Your task to perform on an android device: delete location history Image 0: 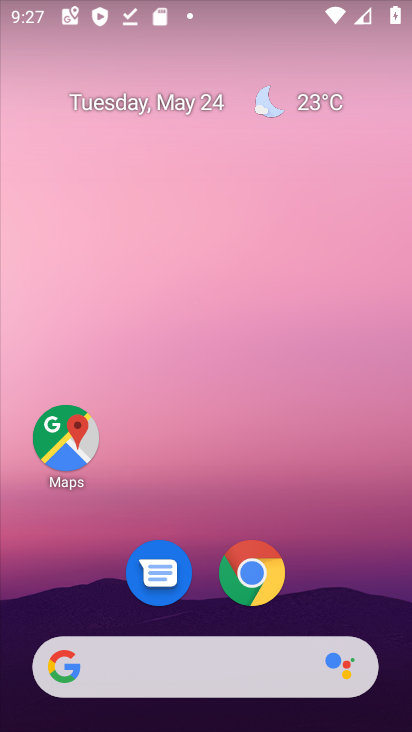
Step 0: drag from (372, 648) to (184, 15)
Your task to perform on an android device: delete location history Image 1: 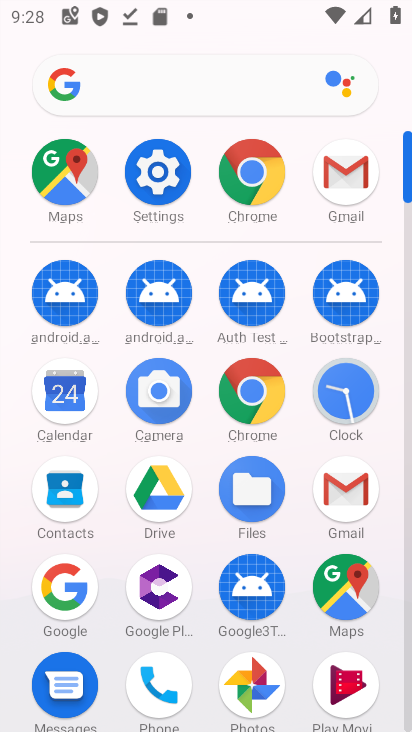
Step 1: click (152, 179)
Your task to perform on an android device: delete location history Image 2: 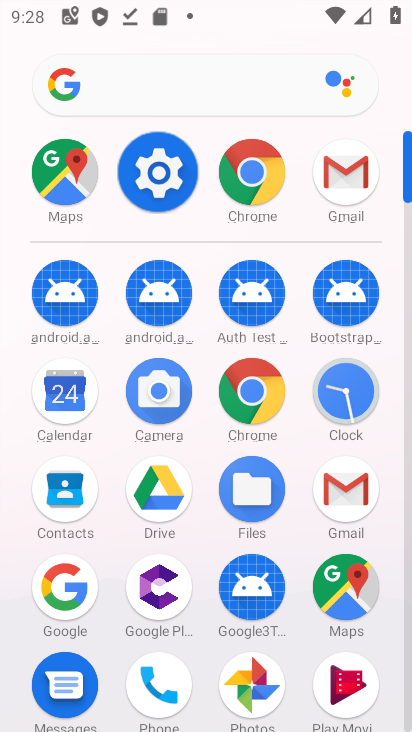
Step 2: click (153, 179)
Your task to perform on an android device: delete location history Image 3: 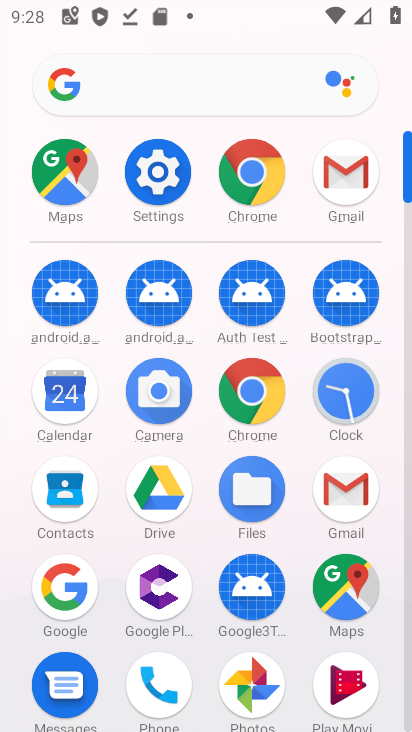
Step 3: click (153, 173)
Your task to perform on an android device: delete location history Image 4: 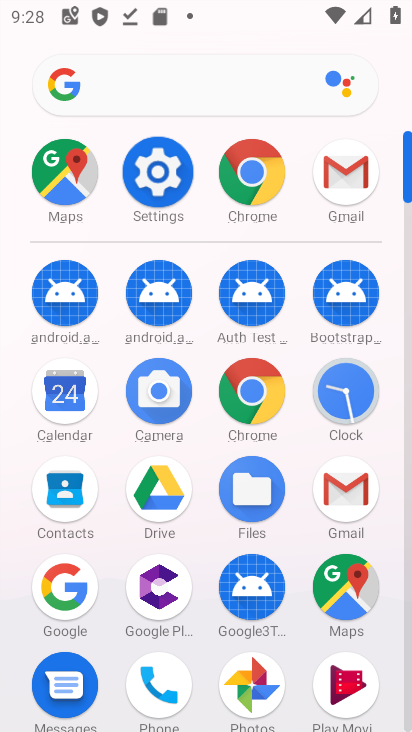
Step 4: click (149, 169)
Your task to perform on an android device: delete location history Image 5: 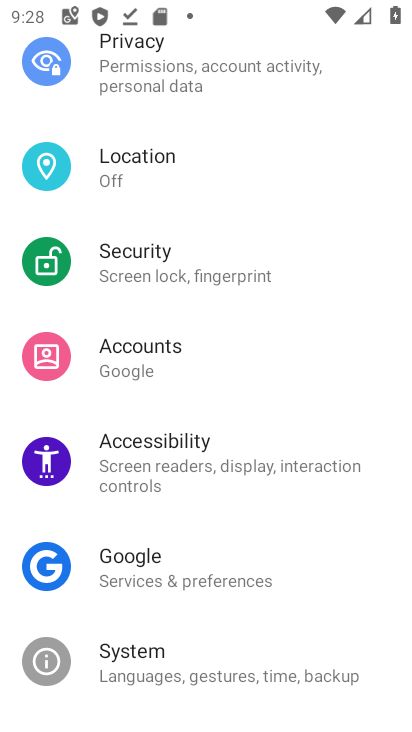
Step 5: click (150, 173)
Your task to perform on an android device: delete location history Image 6: 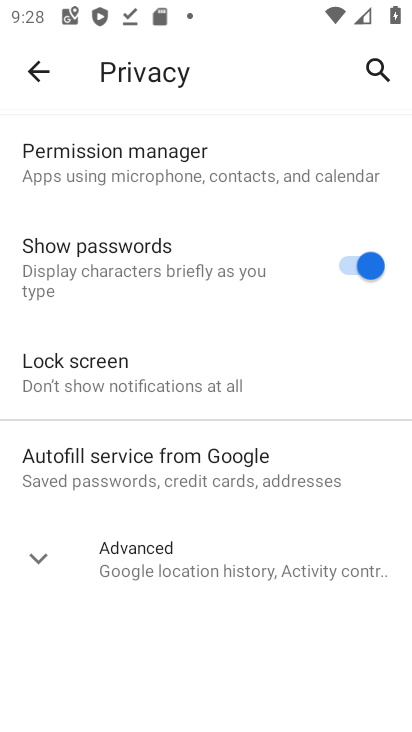
Step 6: click (35, 70)
Your task to perform on an android device: delete location history Image 7: 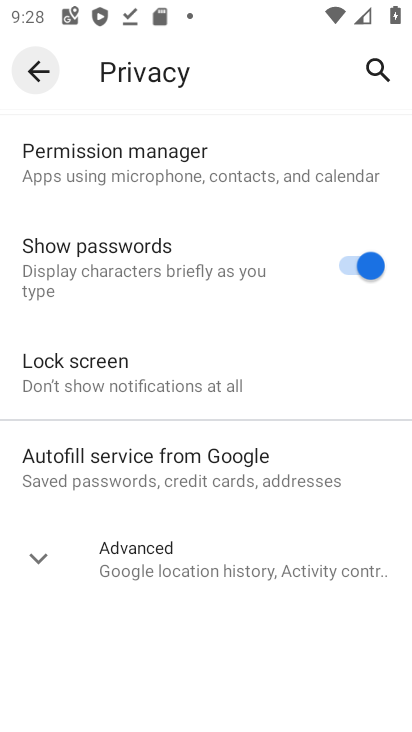
Step 7: click (40, 70)
Your task to perform on an android device: delete location history Image 8: 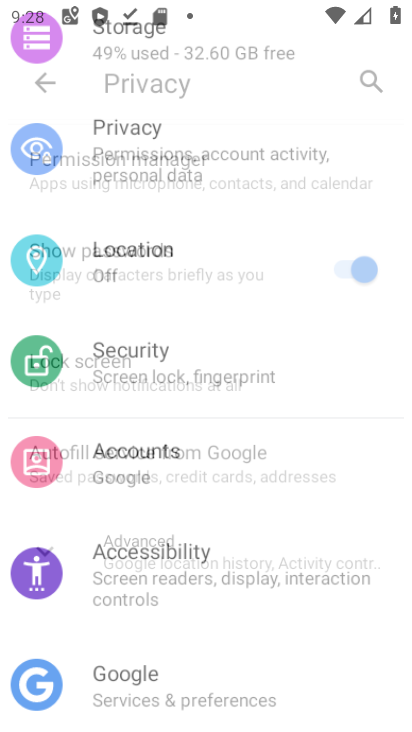
Step 8: click (40, 69)
Your task to perform on an android device: delete location history Image 9: 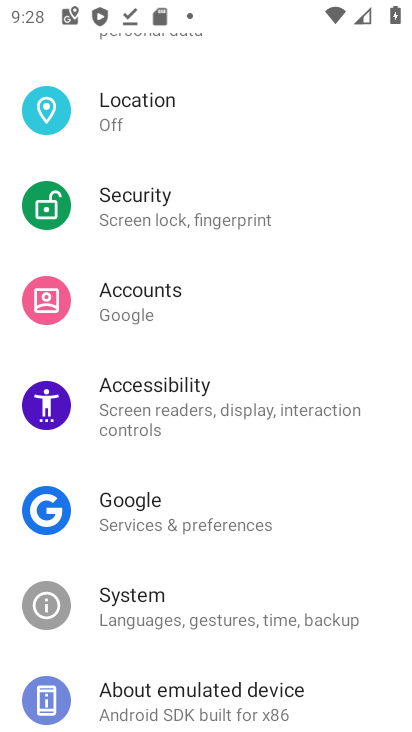
Step 9: click (40, 69)
Your task to perform on an android device: delete location history Image 10: 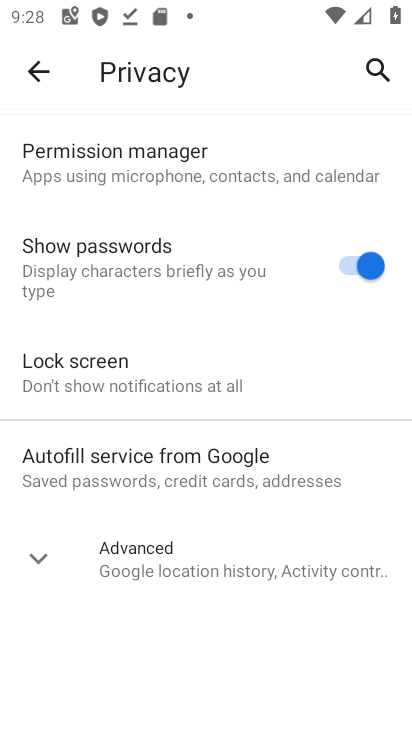
Step 10: click (36, 68)
Your task to perform on an android device: delete location history Image 11: 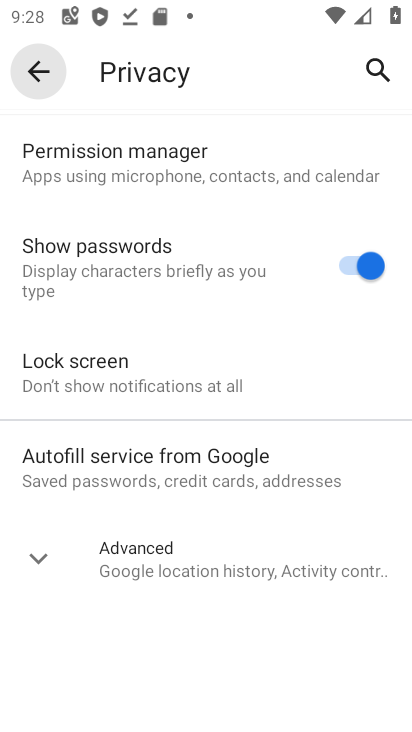
Step 11: click (37, 68)
Your task to perform on an android device: delete location history Image 12: 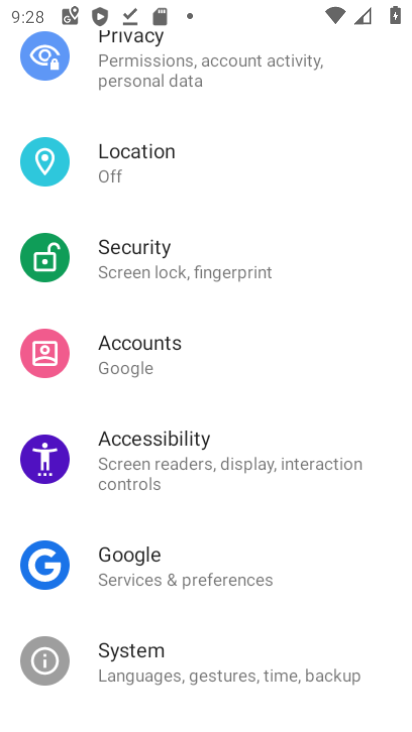
Step 12: click (37, 68)
Your task to perform on an android device: delete location history Image 13: 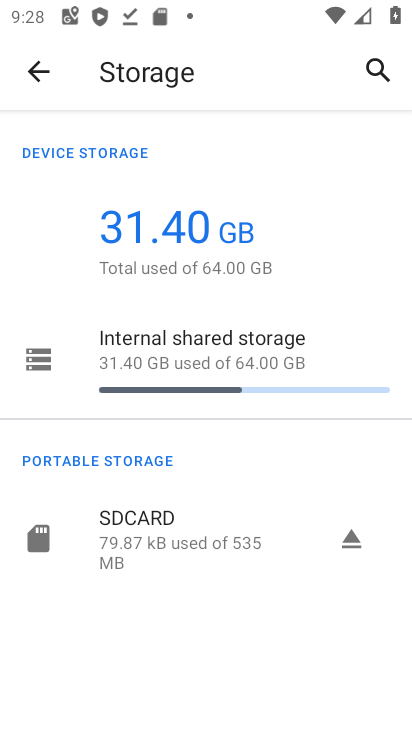
Step 13: click (33, 69)
Your task to perform on an android device: delete location history Image 14: 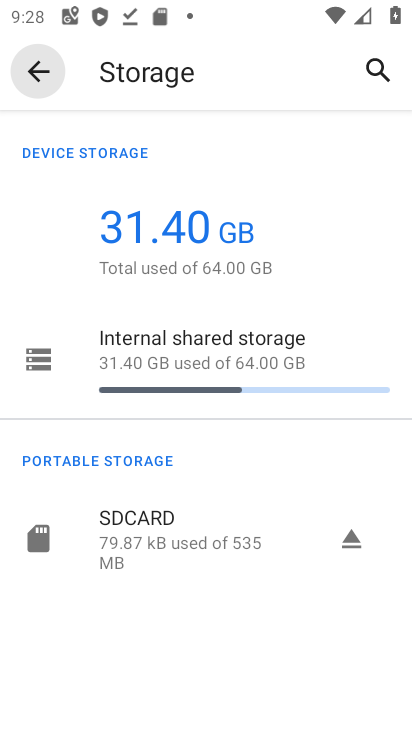
Step 14: task complete